Your task to perform on an android device: toggle notifications settings in the gmail app Image 0: 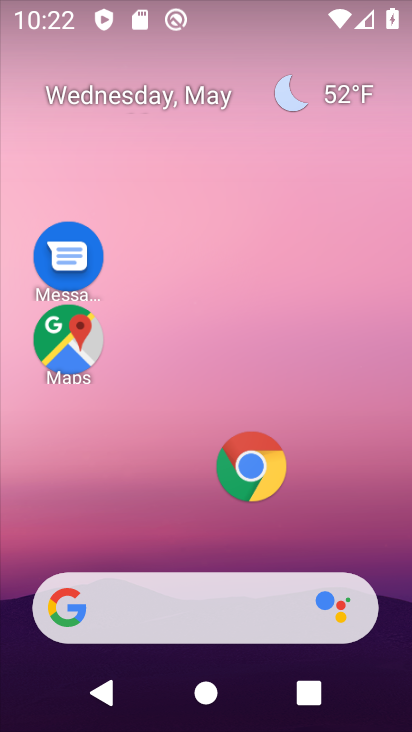
Step 0: drag from (164, 526) to (210, 151)
Your task to perform on an android device: toggle notifications settings in the gmail app Image 1: 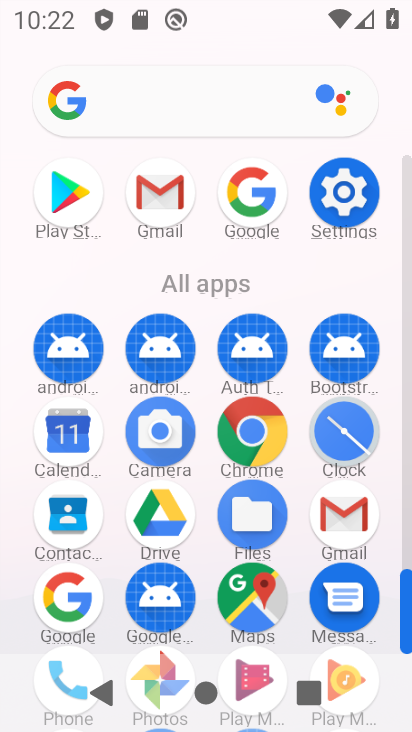
Step 1: click (168, 187)
Your task to perform on an android device: toggle notifications settings in the gmail app Image 2: 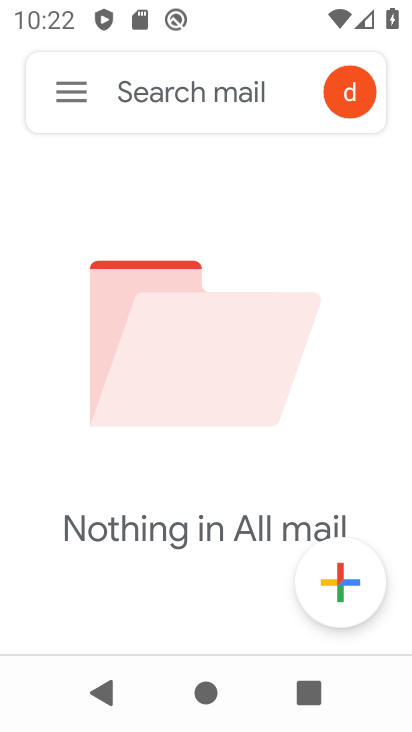
Step 2: click (61, 109)
Your task to perform on an android device: toggle notifications settings in the gmail app Image 3: 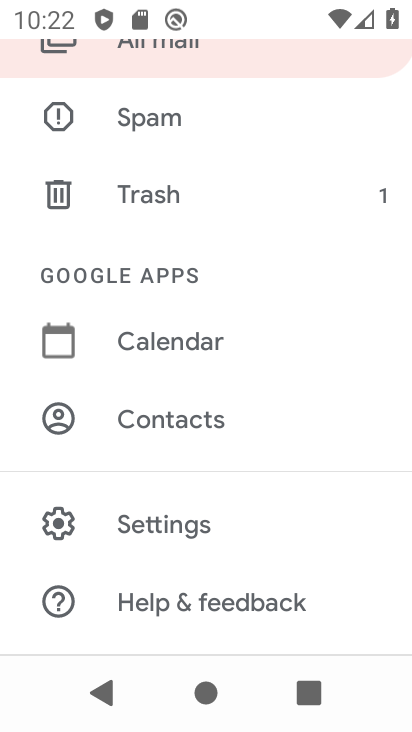
Step 3: click (193, 519)
Your task to perform on an android device: toggle notifications settings in the gmail app Image 4: 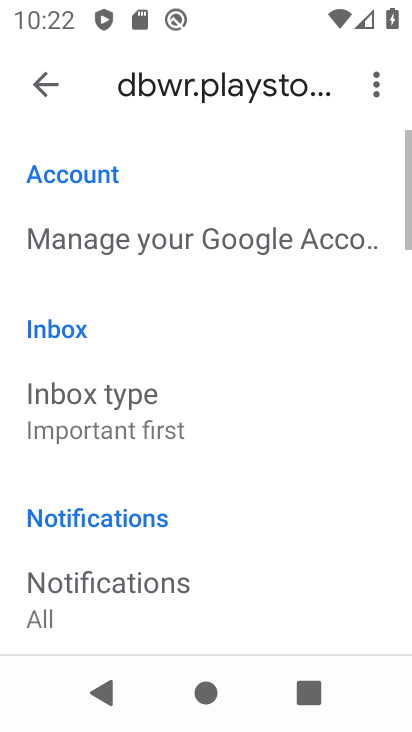
Step 4: click (117, 595)
Your task to perform on an android device: toggle notifications settings in the gmail app Image 5: 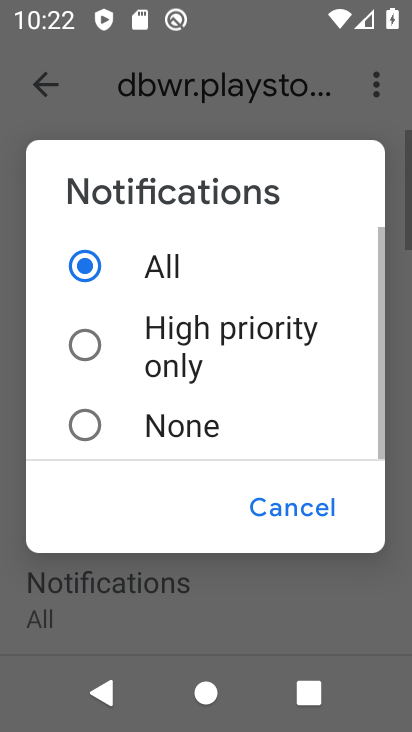
Step 5: click (80, 417)
Your task to perform on an android device: toggle notifications settings in the gmail app Image 6: 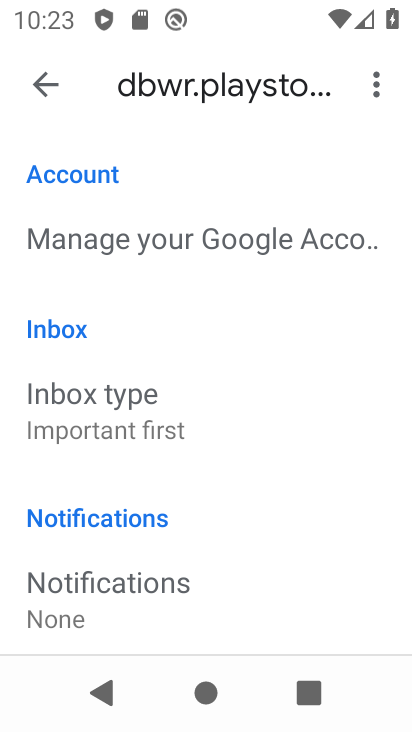
Step 6: task complete